Your task to perform on an android device: turn on sleep mode Image 0: 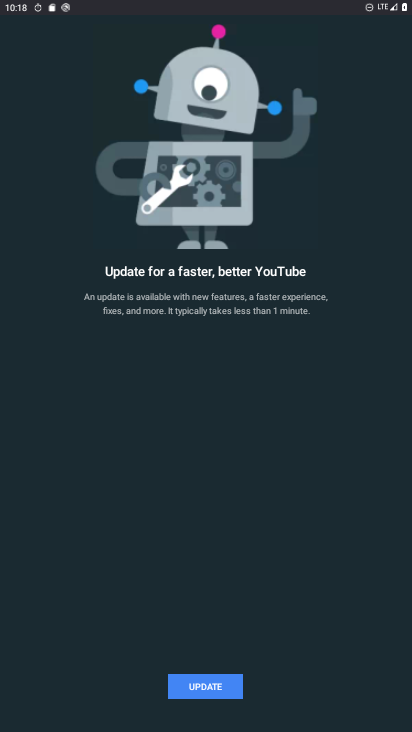
Step 0: press home button
Your task to perform on an android device: turn on sleep mode Image 1: 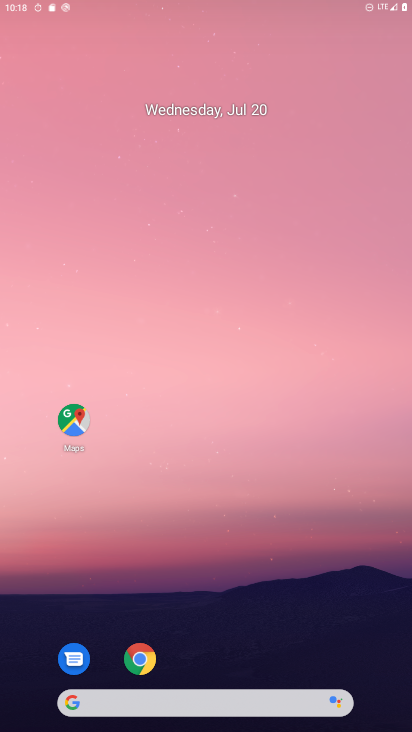
Step 1: drag from (312, 640) to (90, 15)
Your task to perform on an android device: turn on sleep mode Image 2: 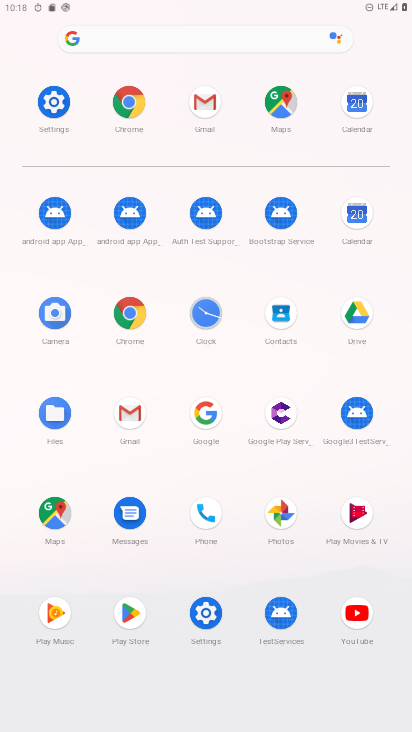
Step 2: click (44, 100)
Your task to perform on an android device: turn on sleep mode Image 3: 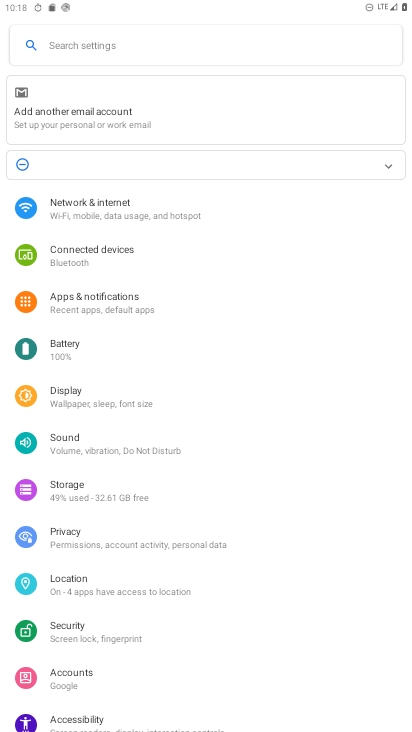
Step 3: click (94, 222)
Your task to perform on an android device: turn on sleep mode Image 4: 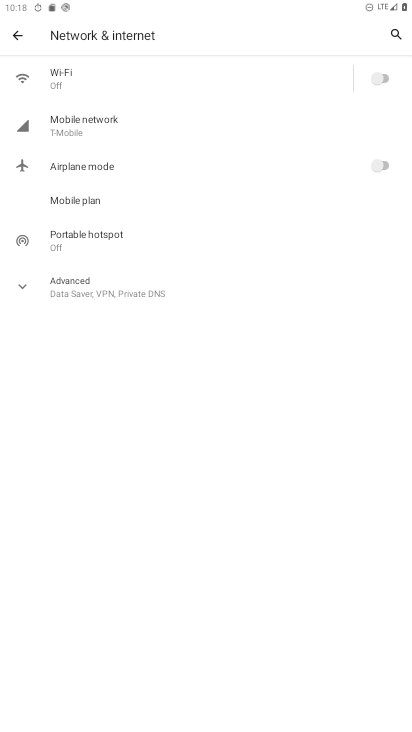
Step 4: click (26, 35)
Your task to perform on an android device: turn on sleep mode Image 5: 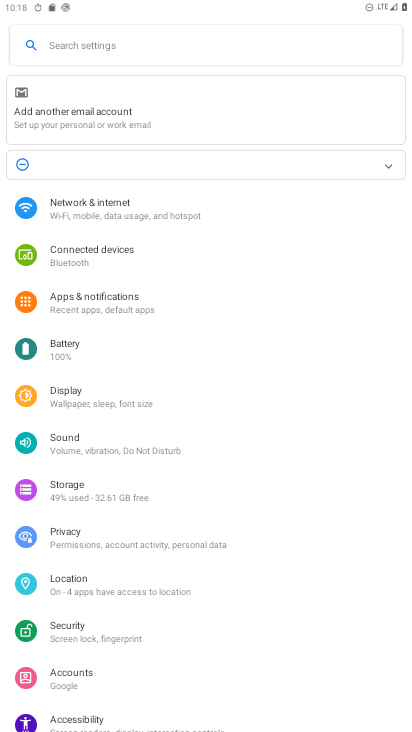
Step 5: click (81, 397)
Your task to perform on an android device: turn on sleep mode Image 6: 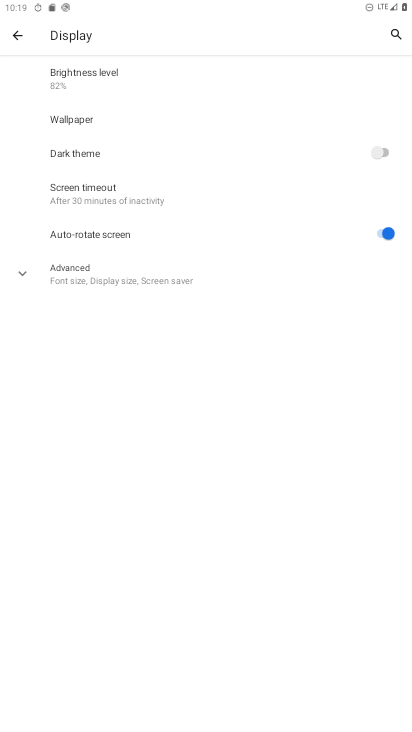
Step 6: click (97, 195)
Your task to perform on an android device: turn on sleep mode Image 7: 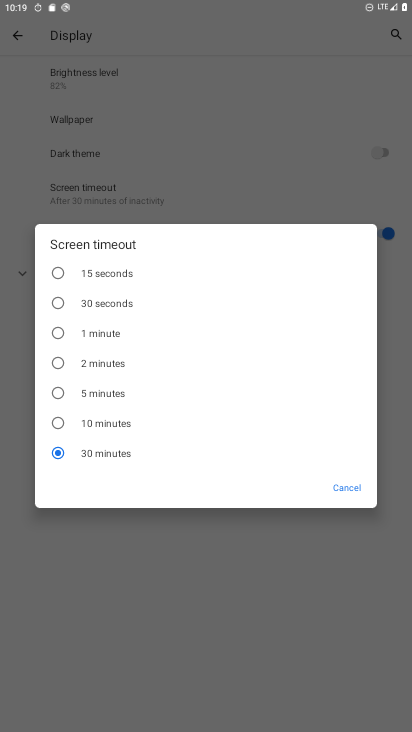
Step 7: task complete